Your task to perform on an android device: snooze an email in the gmail app Image 0: 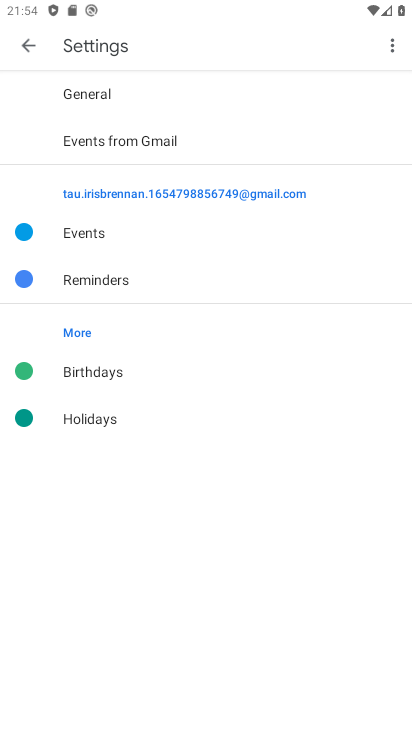
Step 0: press home button
Your task to perform on an android device: snooze an email in the gmail app Image 1: 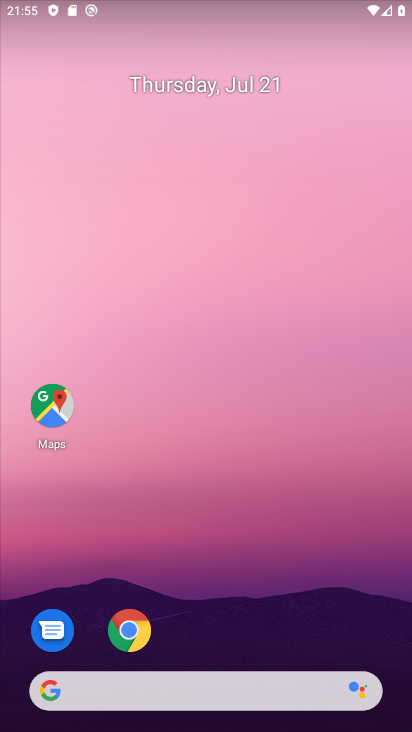
Step 1: drag from (186, 675) to (102, 107)
Your task to perform on an android device: snooze an email in the gmail app Image 2: 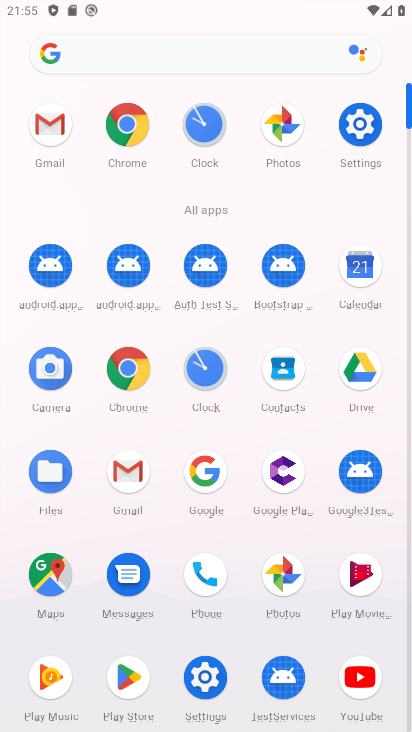
Step 2: click (130, 478)
Your task to perform on an android device: snooze an email in the gmail app Image 3: 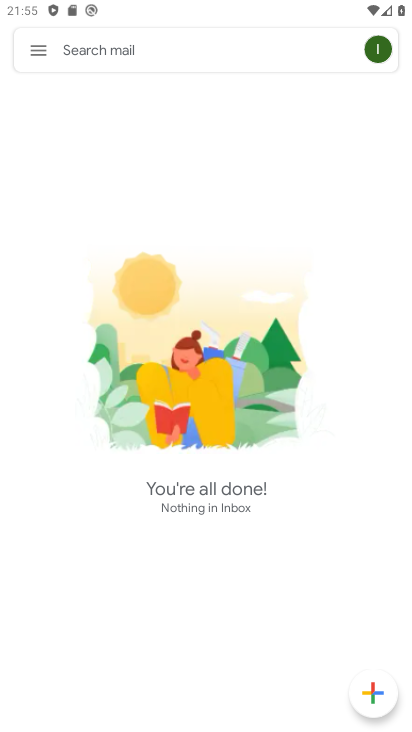
Step 3: click (18, 57)
Your task to perform on an android device: snooze an email in the gmail app Image 4: 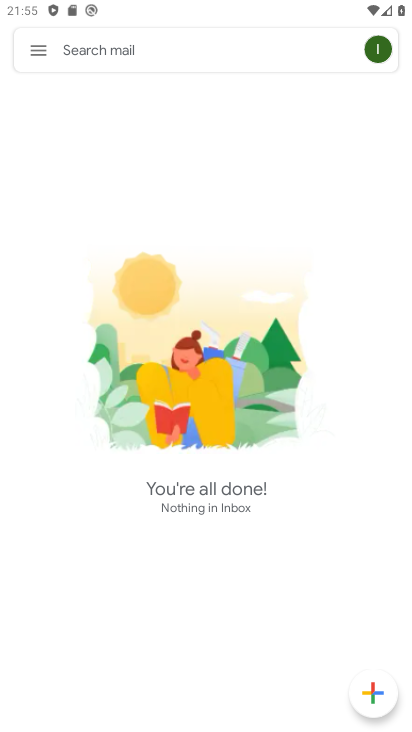
Step 4: click (25, 57)
Your task to perform on an android device: snooze an email in the gmail app Image 5: 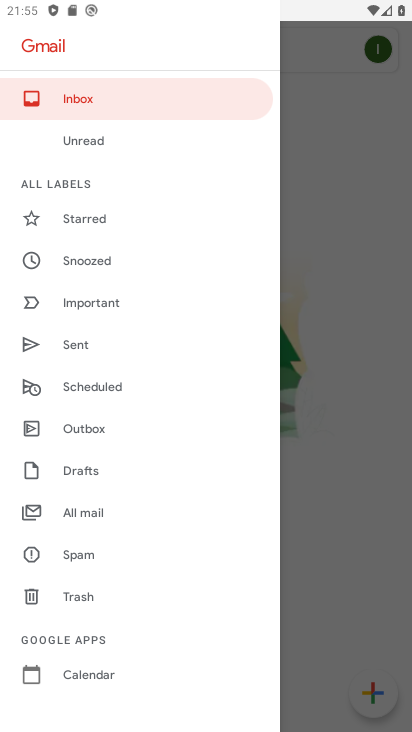
Step 5: click (101, 509)
Your task to perform on an android device: snooze an email in the gmail app Image 6: 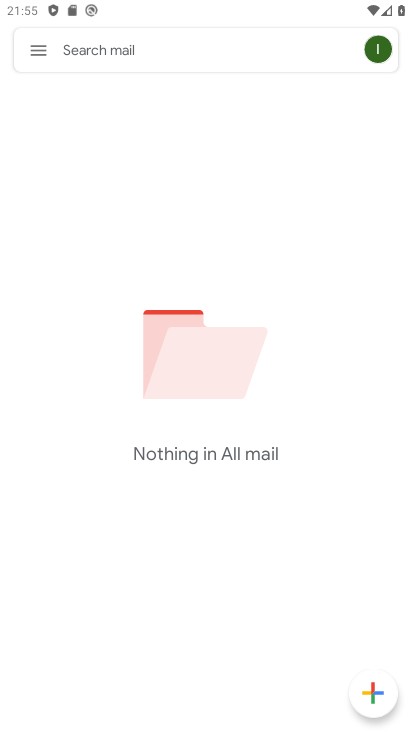
Step 6: task complete